Your task to perform on an android device: empty trash in google photos Image 0: 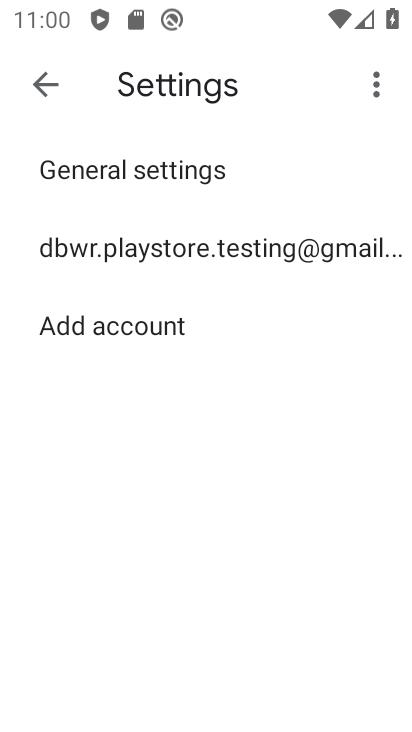
Step 0: click (35, 74)
Your task to perform on an android device: empty trash in google photos Image 1: 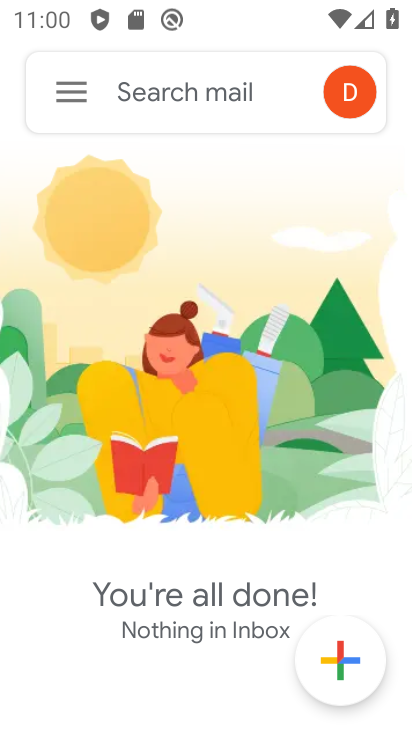
Step 1: click (82, 92)
Your task to perform on an android device: empty trash in google photos Image 2: 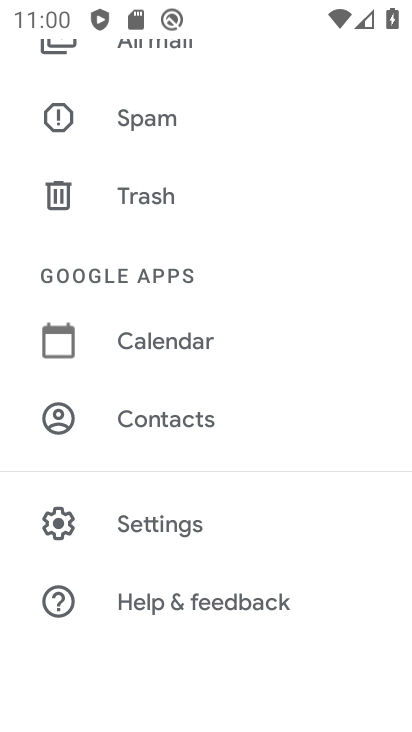
Step 2: click (197, 195)
Your task to perform on an android device: empty trash in google photos Image 3: 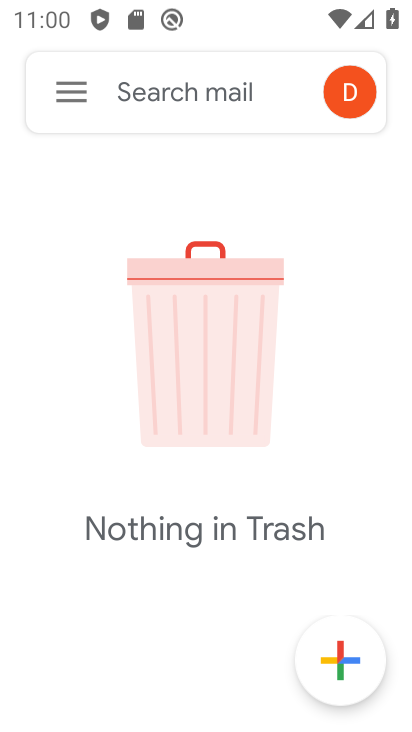
Step 3: task complete